Your task to perform on an android device: check storage Image 0: 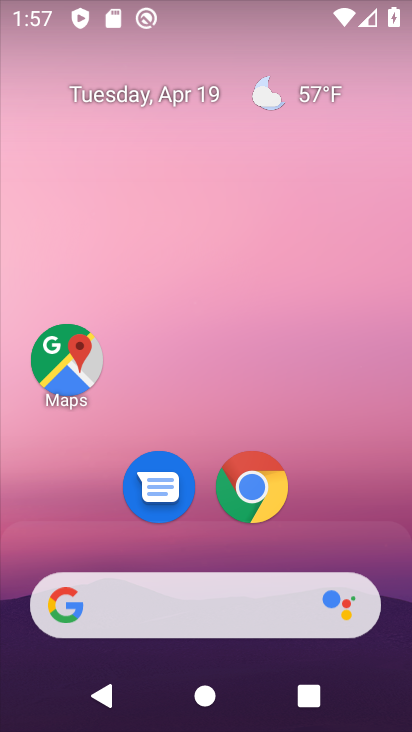
Step 0: drag from (257, 6) to (293, 692)
Your task to perform on an android device: check storage Image 1: 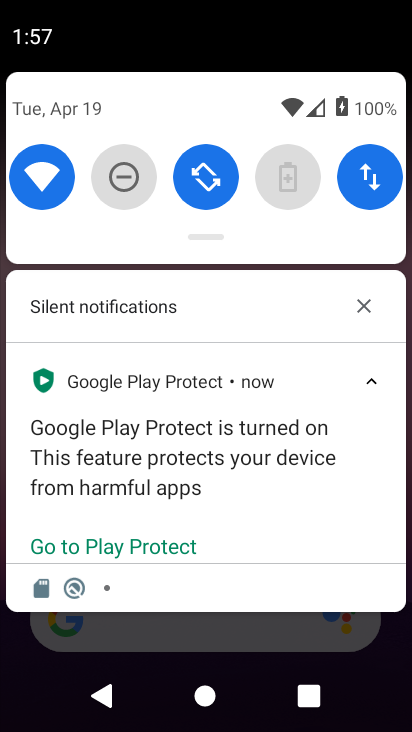
Step 1: click (274, 671)
Your task to perform on an android device: check storage Image 2: 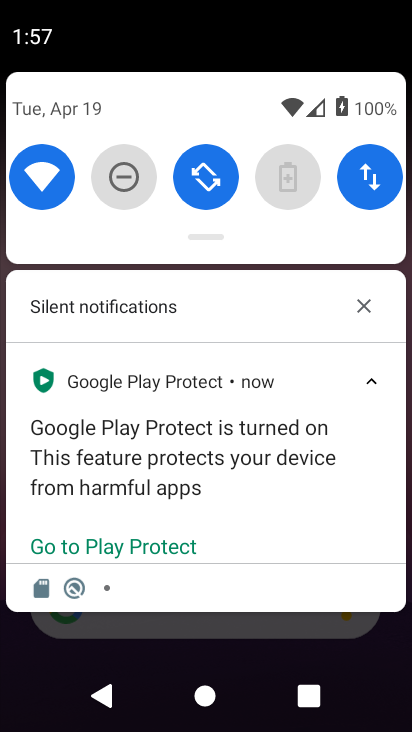
Step 2: drag from (190, 132) to (200, 671)
Your task to perform on an android device: check storage Image 3: 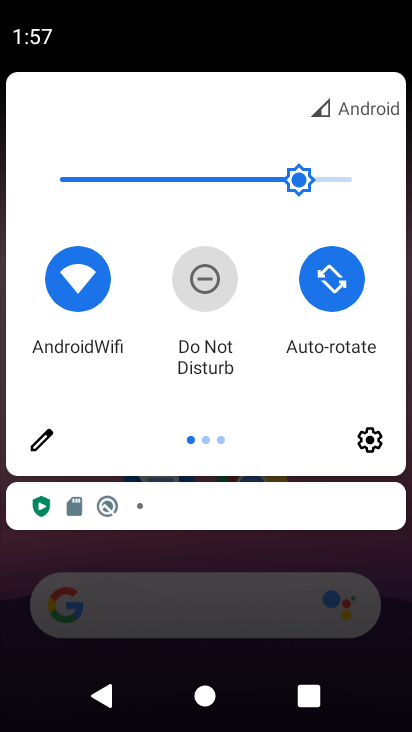
Step 3: click (376, 442)
Your task to perform on an android device: check storage Image 4: 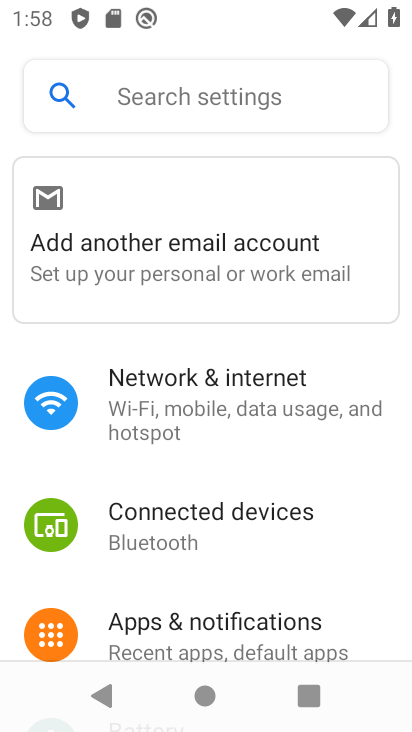
Step 4: drag from (201, 440) to (176, 9)
Your task to perform on an android device: check storage Image 5: 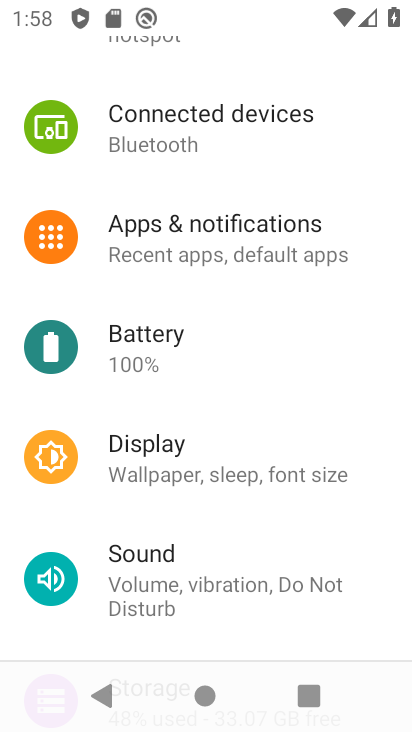
Step 5: drag from (108, 624) to (179, 62)
Your task to perform on an android device: check storage Image 6: 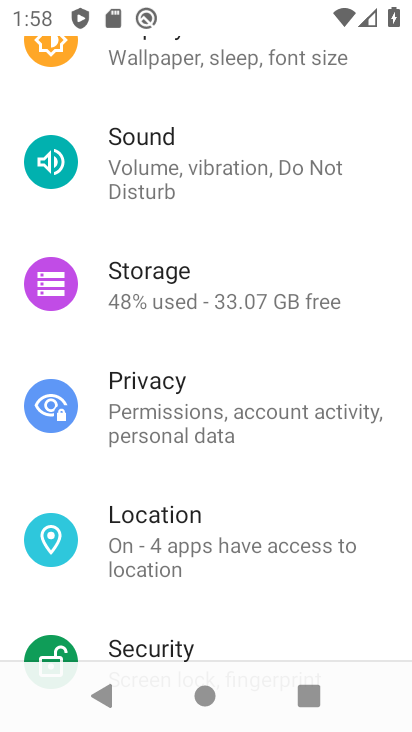
Step 6: drag from (138, 605) to (134, 227)
Your task to perform on an android device: check storage Image 7: 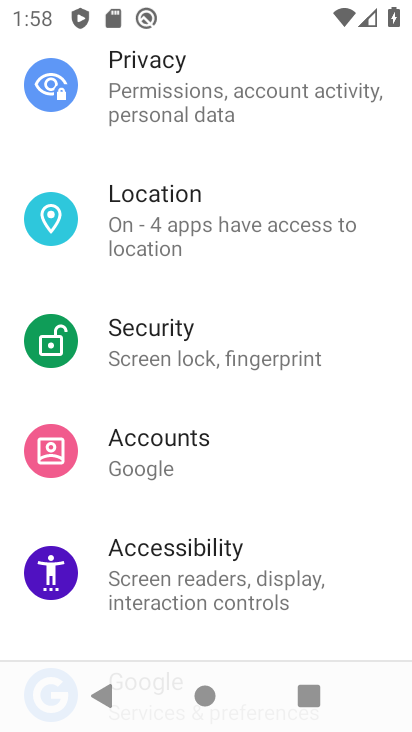
Step 7: drag from (177, 153) to (211, 521)
Your task to perform on an android device: check storage Image 8: 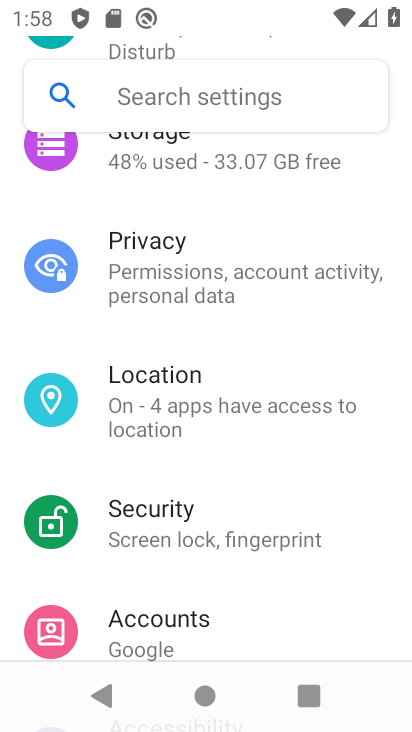
Step 8: click (150, 168)
Your task to perform on an android device: check storage Image 9: 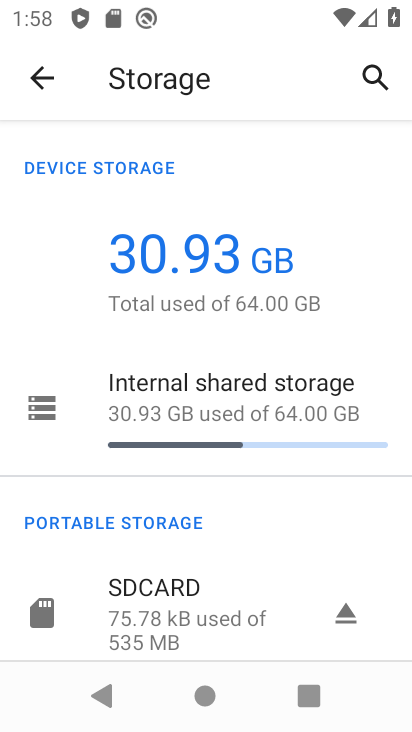
Step 9: task complete